Your task to perform on an android device: refresh tabs in the chrome app Image 0: 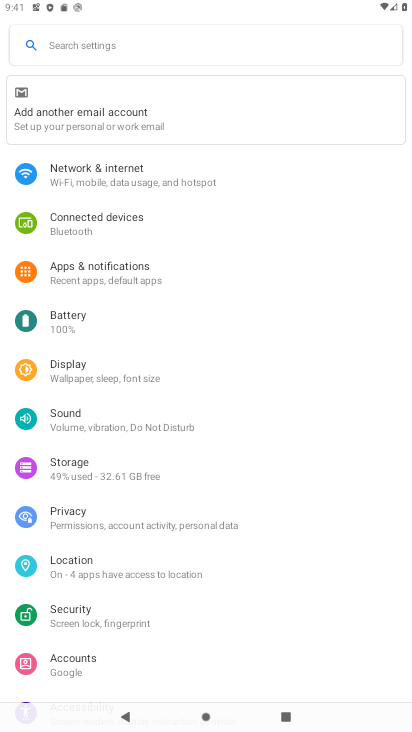
Step 0: press home button
Your task to perform on an android device: refresh tabs in the chrome app Image 1: 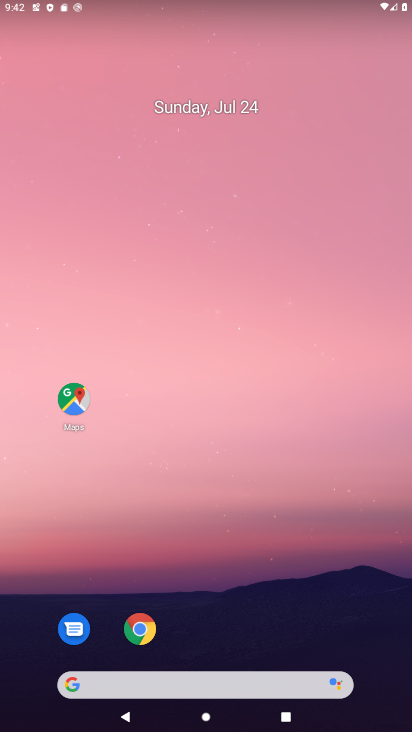
Step 1: click (144, 640)
Your task to perform on an android device: refresh tabs in the chrome app Image 2: 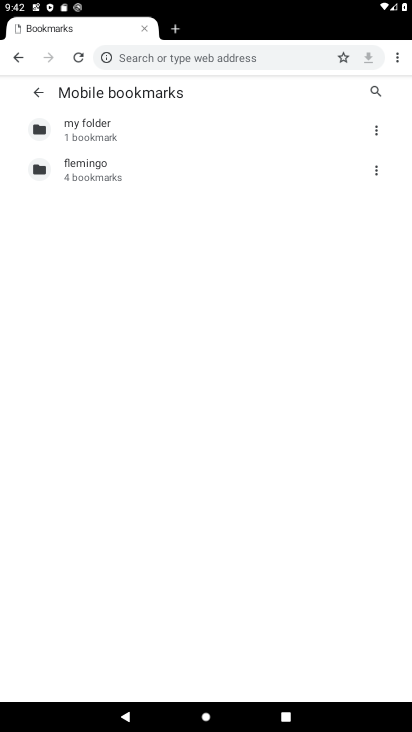
Step 2: click (398, 53)
Your task to perform on an android device: refresh tabs in the chrome app Image 3: 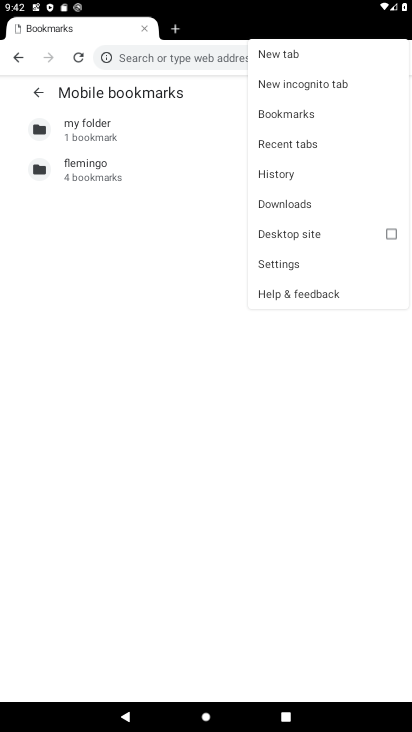
Step 3: click (165, 60)
Your task to perform on an android device: refresh tabs in the chrome app Image 4: 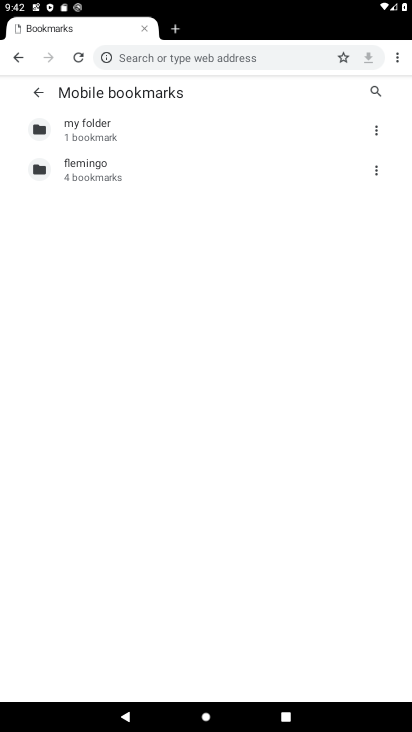
Step 4: click (82, 60)
Your task to perform on an android device: refresh tabs in the chrome app Image 5: 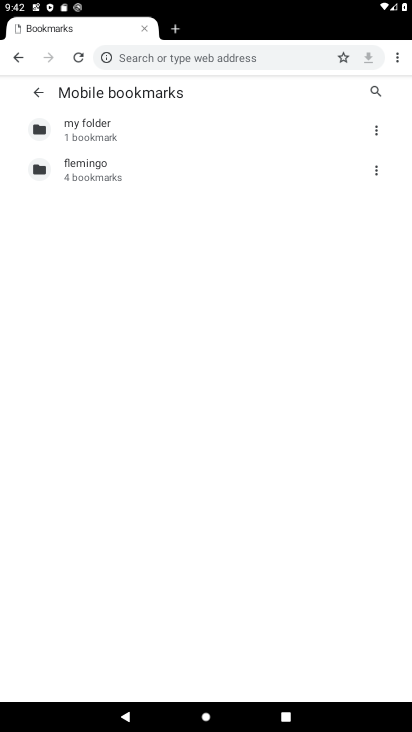
Step 5: task complete